Your task to perform on an android device: Go to network settings Image 0: 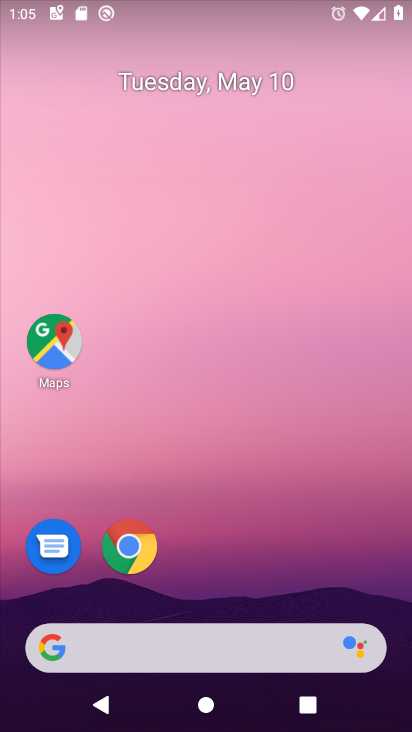
Step 0: drag from (331, 580) to (348, 408)
Your task to perform on an android device: Go to network settings Image 1: 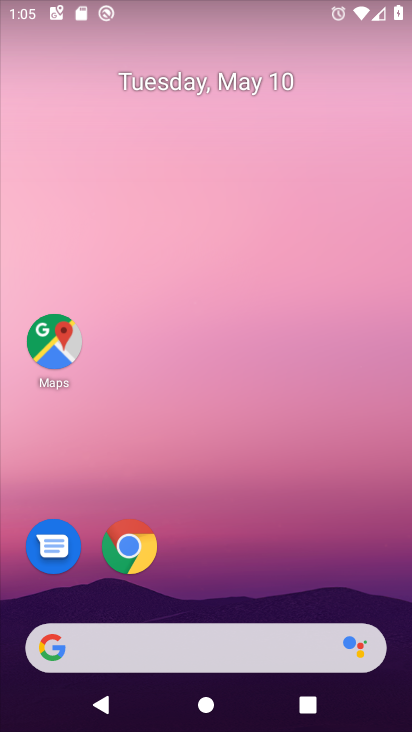
Step 1: drag from (322, 561) to (315, 44)
Your task to perform on an android device: Go to network settings Image 2: 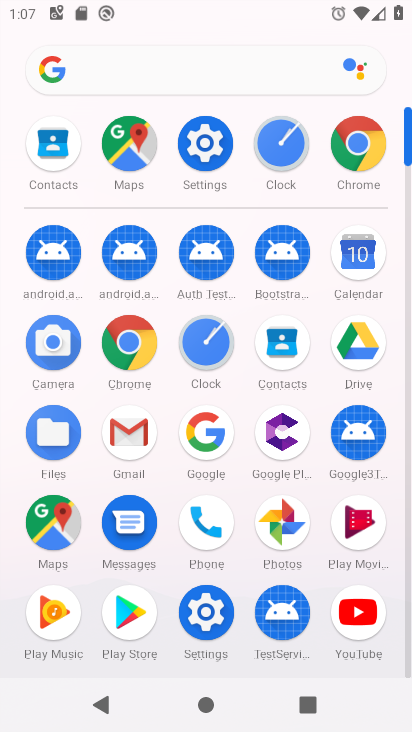
Step 2: click (225, 599)
Your task to perform on an android device: Go to network settings Image 3: 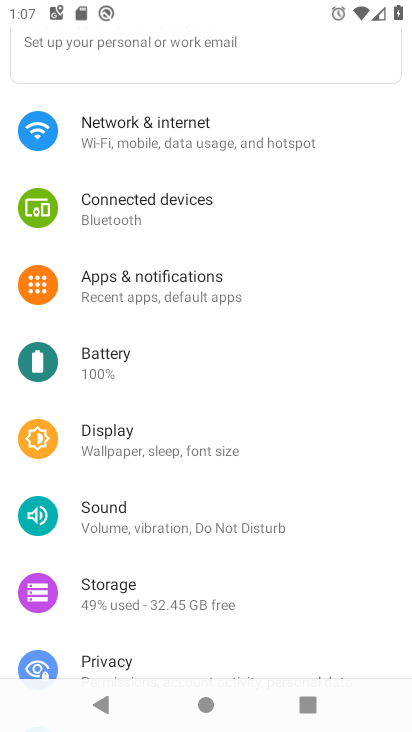
Step 3: drag from (150, 193) to (207, 499)
Your task to perform on an android device: Go to network settings Image 4: 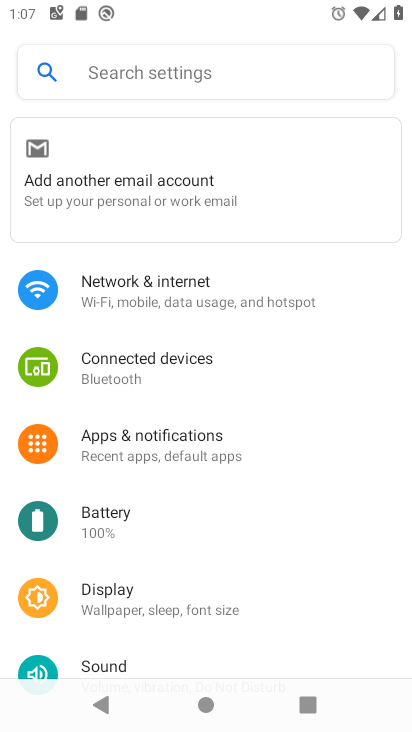
Step 4: click (130, 272)
Your task to perform on an android device: Go to network settings Image 5: 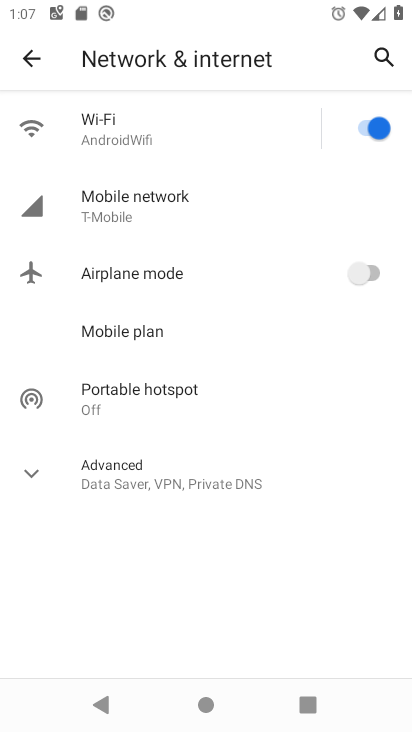
Step 5: task complete